Your task to perform on an android device: Open Yahoo.com Image 0: 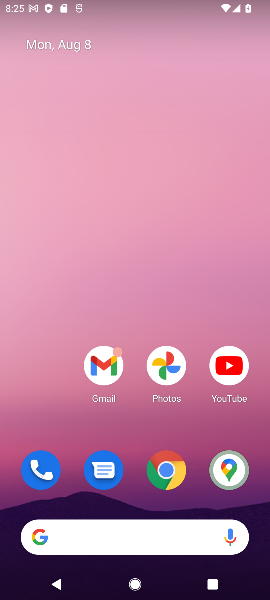
Step 0: click (163, 480)
Your task to perform on an android device: Open Yahoo.com Image 1: 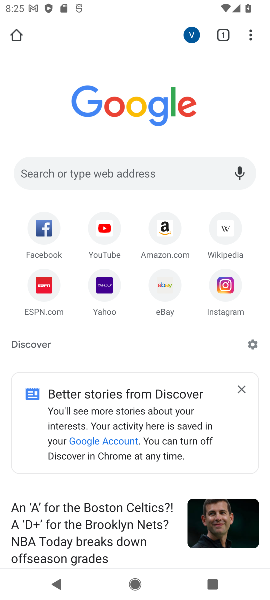
Step 1: click (102, 290)
Your task to perform on an android device: Open Yahoo.com Image 2: 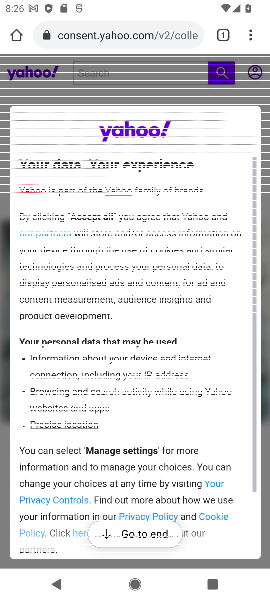
Step 2: task complete